Your task to perform on an android device: delete location history Image 0: 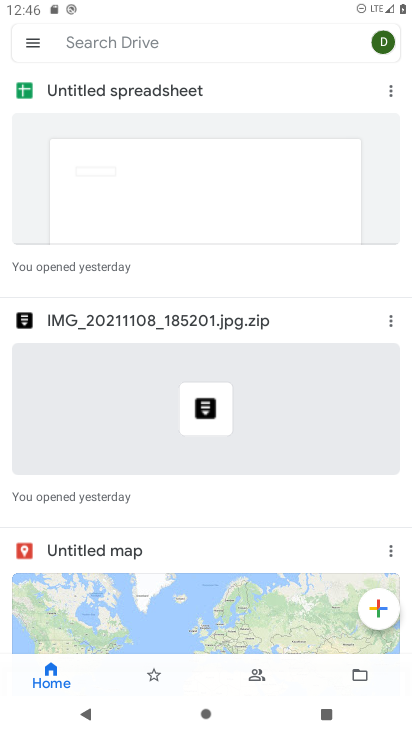
Step 0: press home button
Your task to perform on an android device: delete location history Image 1: 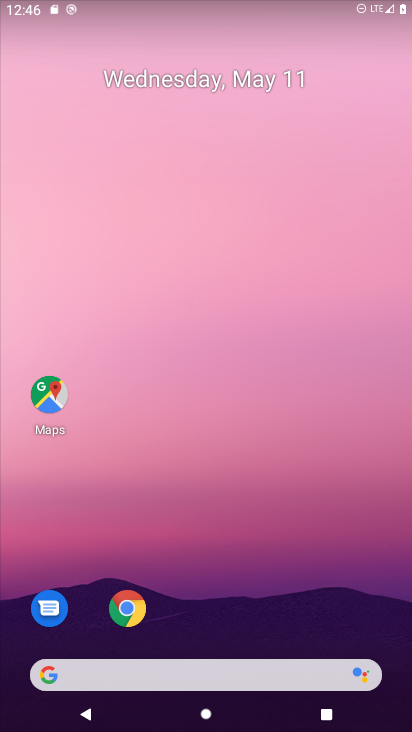
Step 1: drag from (245, 538) to (253, 37)
Your task to perform on an android device: delete location history Image 2: 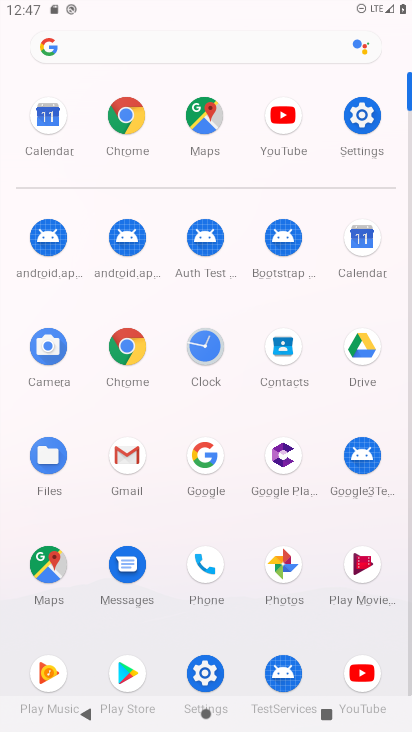
Step 2: click (206, 126)
Your task to perform on an android device: delete location history Image 3: 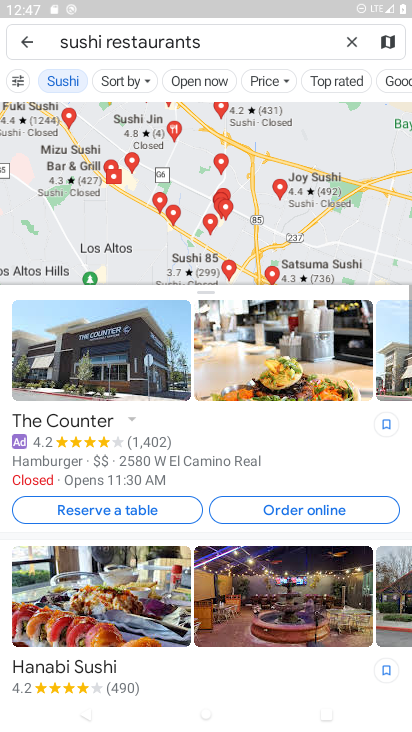
Step 3: click (26, 35)
Your task to perform on an android device: delete location history Image 4: 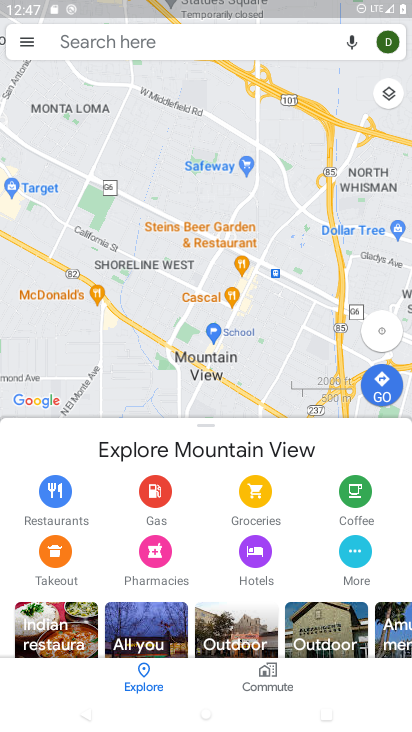
Step 4: click (26, 36)
Your task to perform on an android device: delete location history Image 5: 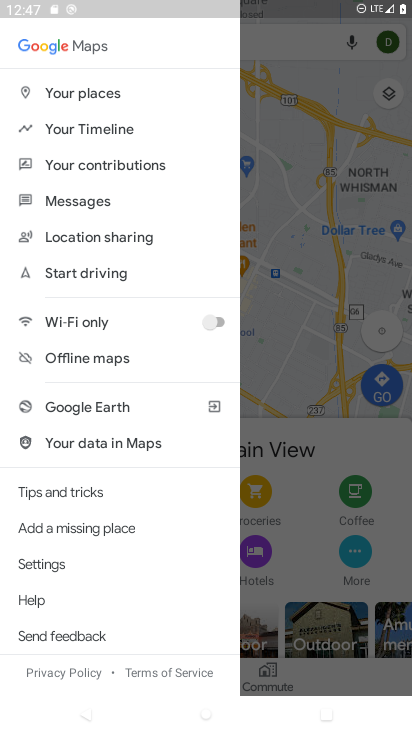
Step 5: click (51, 124)
Your task to perform on an android device: delete location history Image 6: 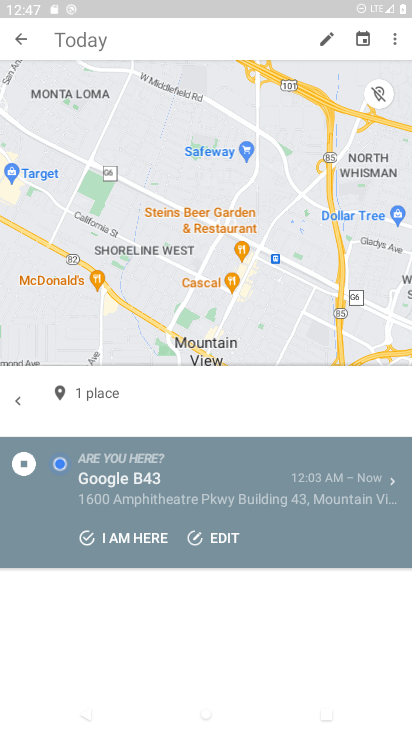
Step 6: click (391, 40)
Your task to perform on an android device: delete location history Image 7: 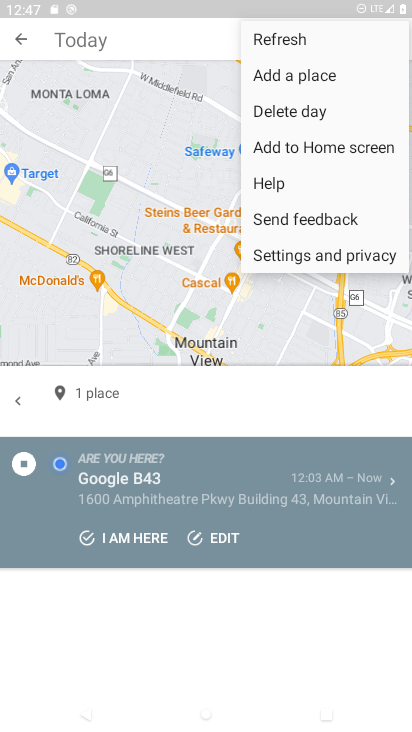
Step 7: click (369, 243)
Your task to perform on an android device: delete location history Image 8: 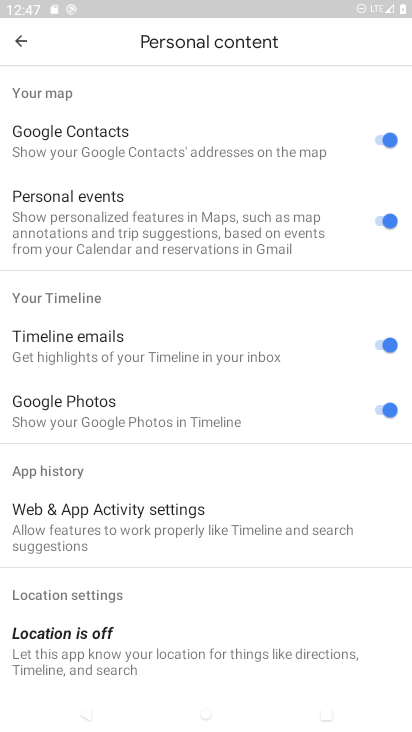
Step 8: drag from (193, 551) to (234, 111)
Your task to perform on an android device: delete location history Image 9: 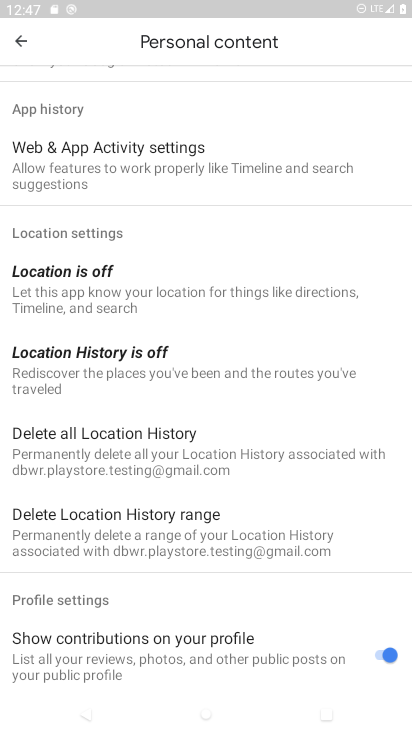
Step 9: click (172, 453)
Your task to perform on an android device: delete location history Image 10: 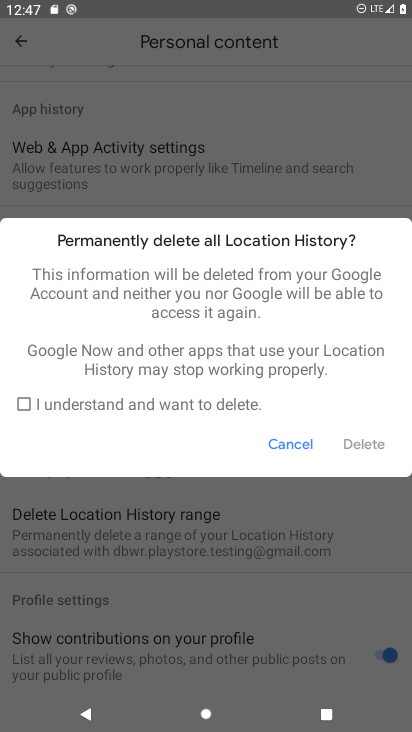
Step 10: click (22, 392)
Your task to perform on an android device: delete location history Image 11: 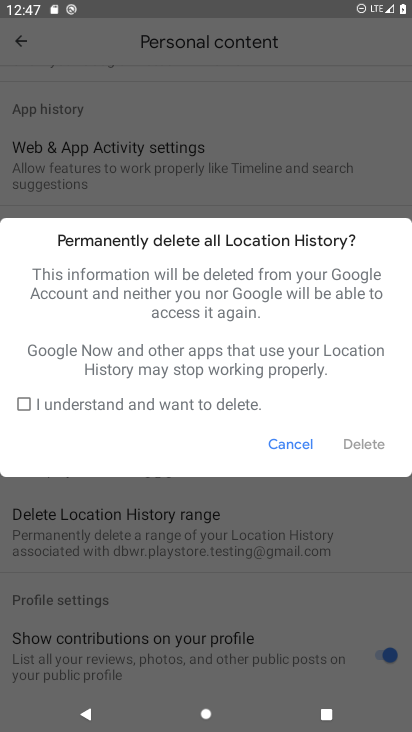
Step 11: click (23, 398)
Your task to perform on an android device: delete location history Image 12: 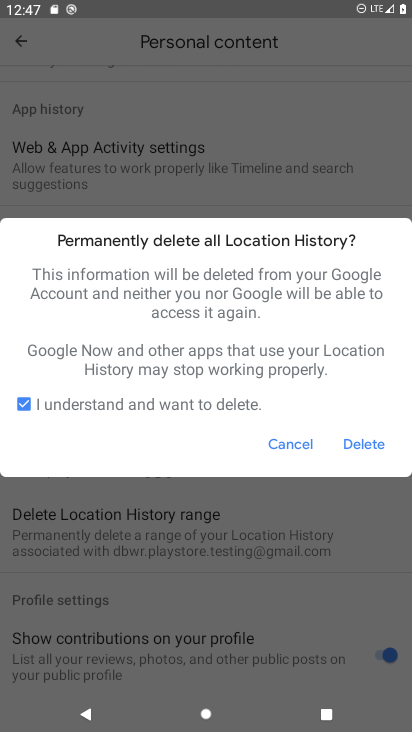
Step 12: click (355, 442)
Your task to perform on an android device: delete location history Image 13: 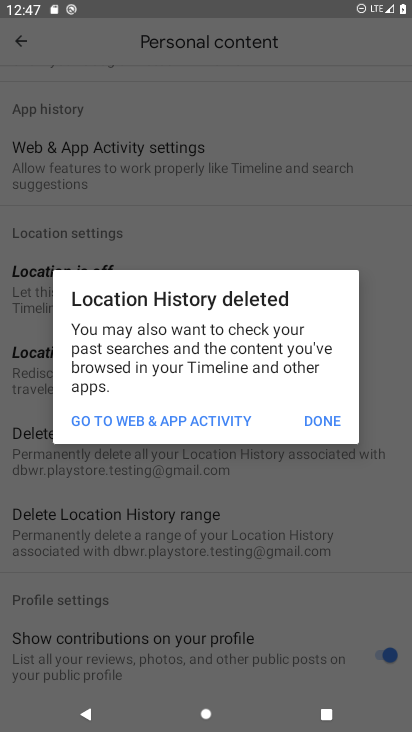
Step 13: click (329, 406)
Your task to perform on an android device: delete location history Image 14: 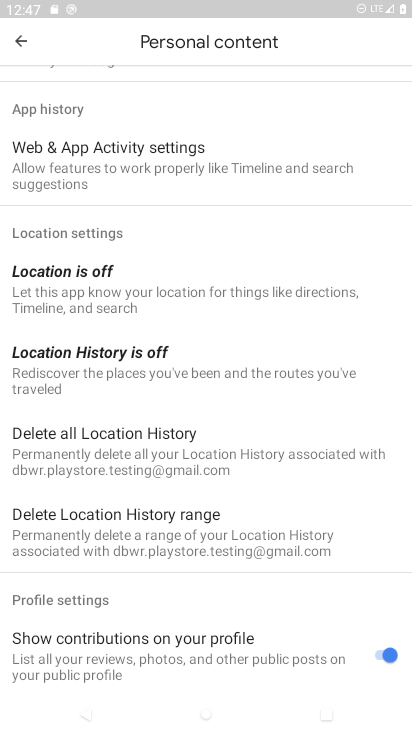
Step 14: task complete